Your task to perform on an android device: Go to privacy settings Image 0: 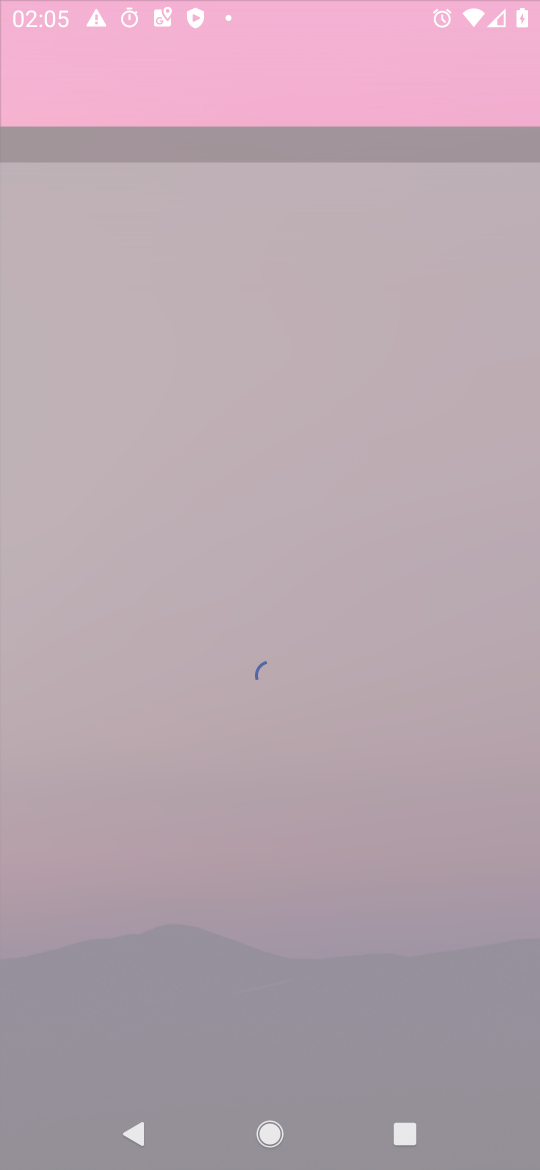
Step 0: press home button
Your task to perform on an android device: Go to privacy settings Image 1: 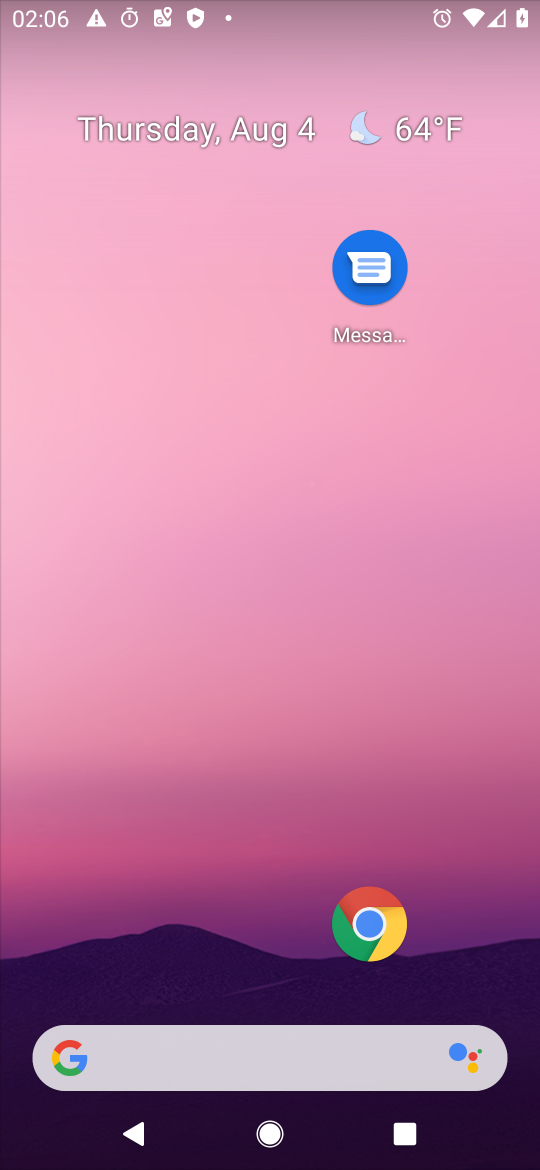
Step 1: drag from (125, 851) to (168, 396)
Your task to perform on an android device: Go to privacy settings Image 2: 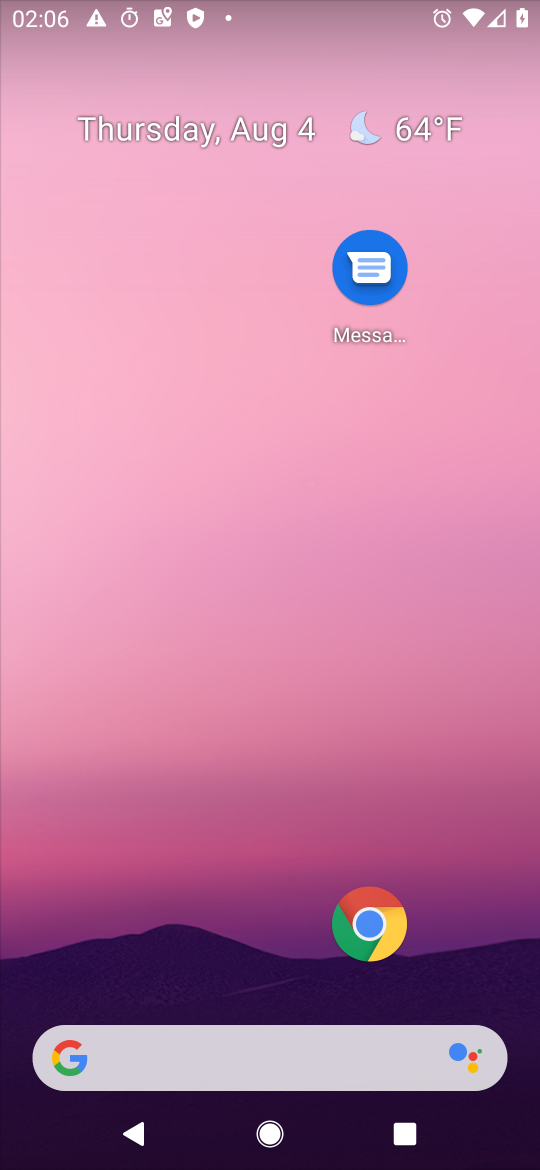
Step 2: drag from (30, 1106) to (293, 324)
Your task to perform on an android device: Go to privacy settings Image 3: 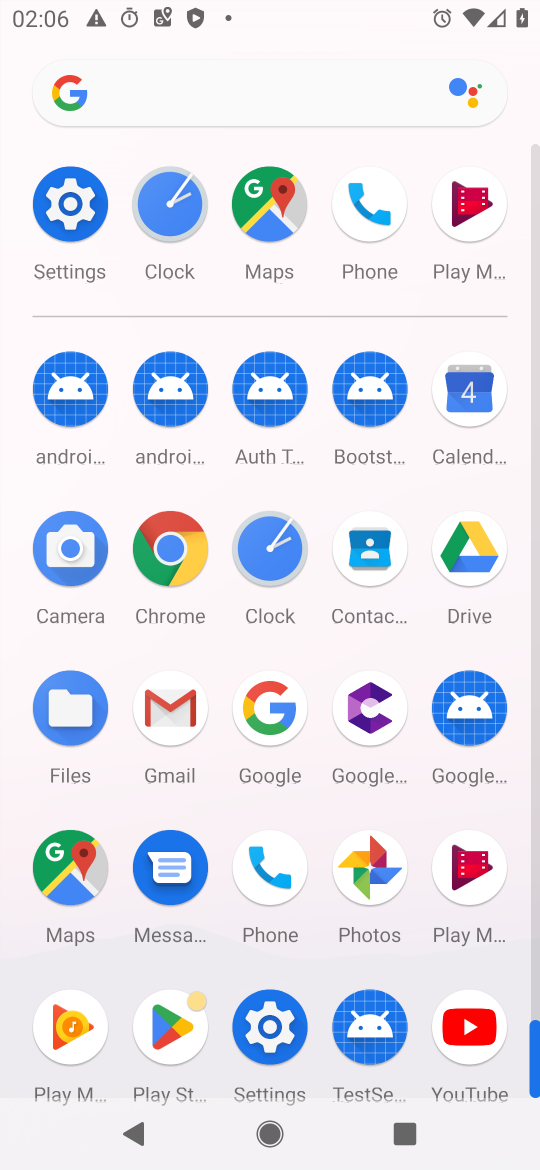
Step 3: click (271, 1023)
Your task to perform on an android device: Go to privacy settings Image 4: 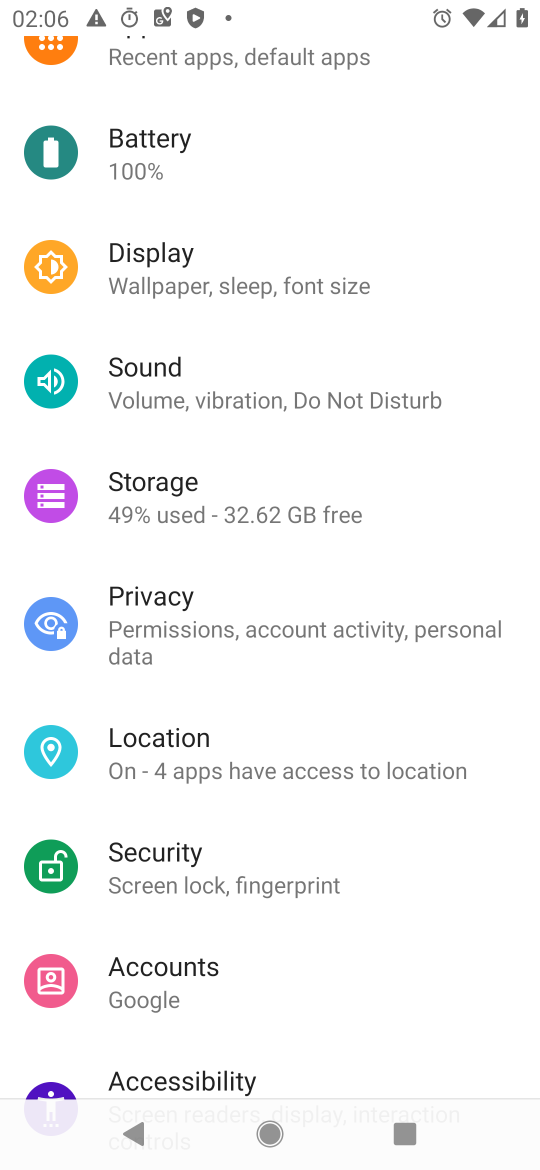
Step 4: click (195, 612)
Your task to perform on an android device: Go to privacy settings Image 5: 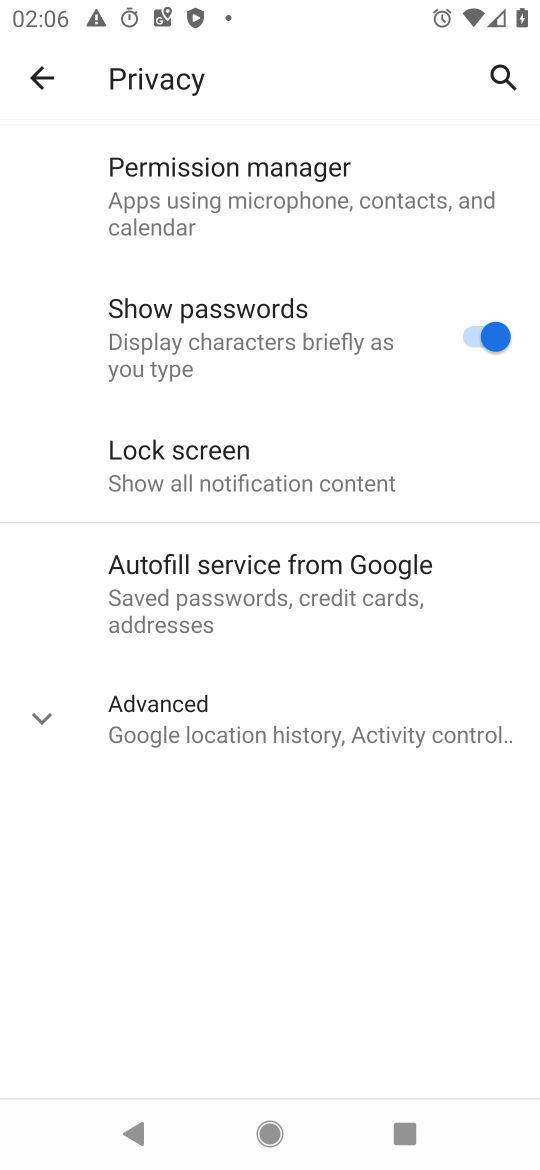
Step 5: task complete